Your task to perform on an android device: clear history in the chrome app Image 0: 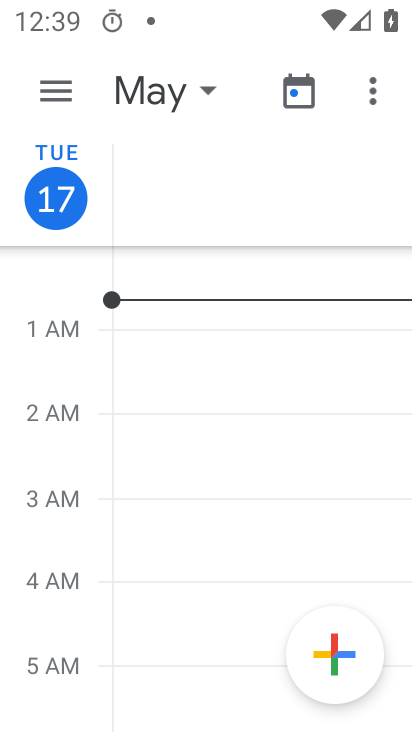
Step 0: press home button
Your task to perform on an android device: clear history in the chrome app Image 1: 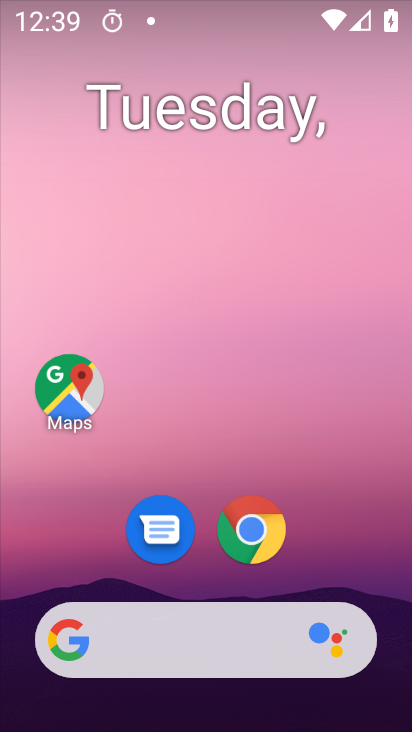
Step 1: click (274, 535)
Your task to perform on an android device: clear history in the chrome app Image 2: 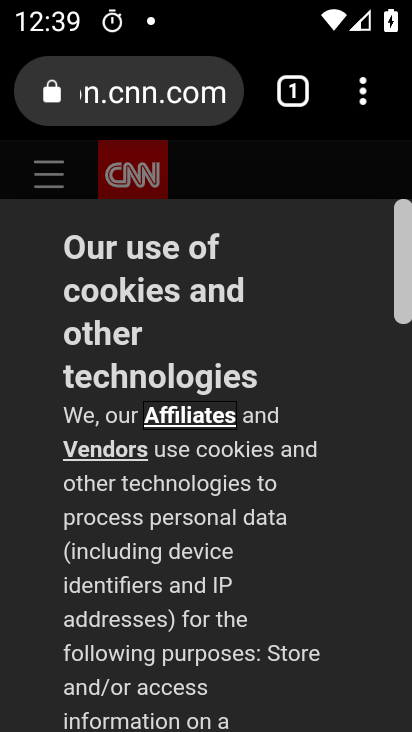
Step 2: drag from (374, 100) to (149, 514)
Your task to perform on an android device: clear history in the chrome app Image 3: 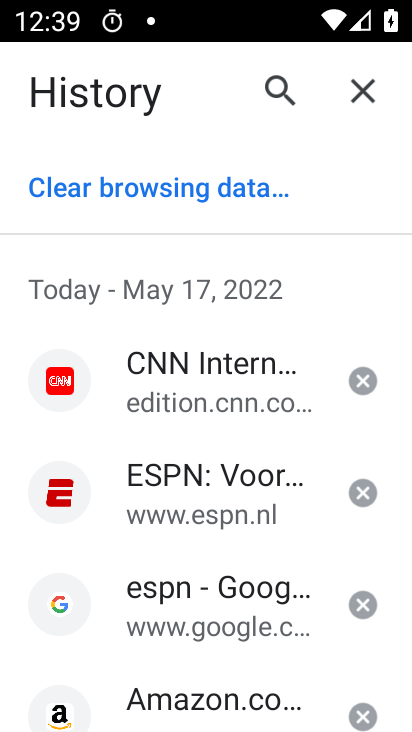
Step 3: click (181, 200)
Your task to perform on an android device: clear history in the chrome app Image 4: 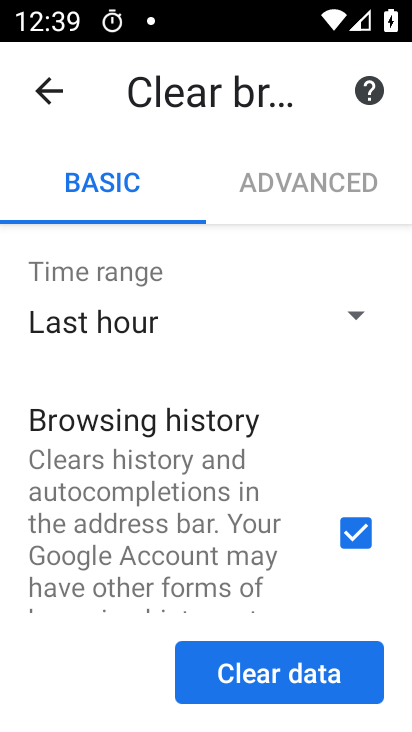
Step 4: drag from (168, 561) to (183, 212)
Your task to perform on an android device: clear history in the chrome app Image 5: 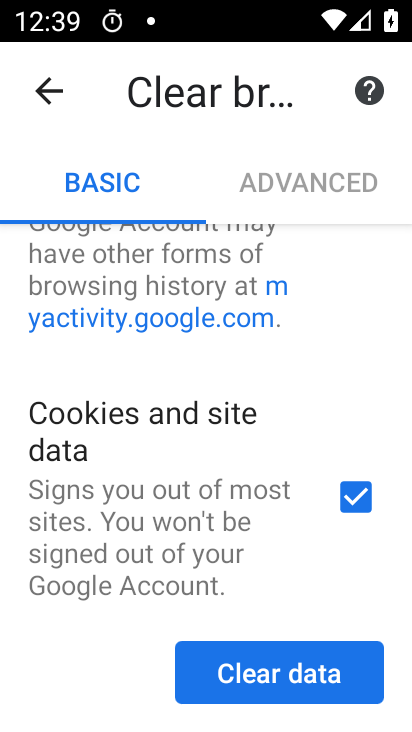
Step 5: drag from (192, 581) to (104, 267)
Your task to perform on an android device: clear history in the chrome app Image 6: 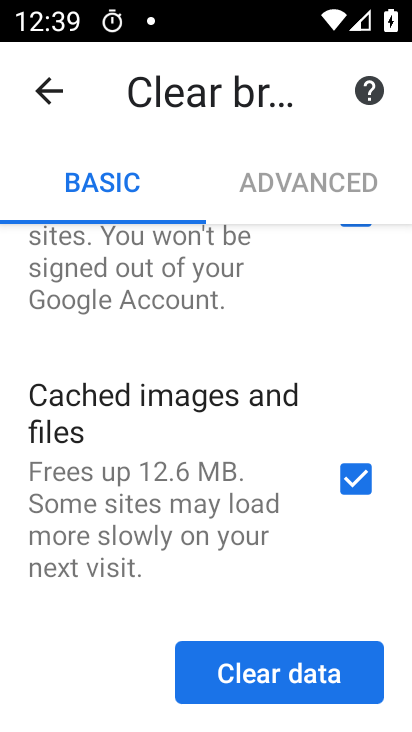
Step 6: click (275, 681)
Your task to perform on an android device: clear history in the chrome app Image 7: 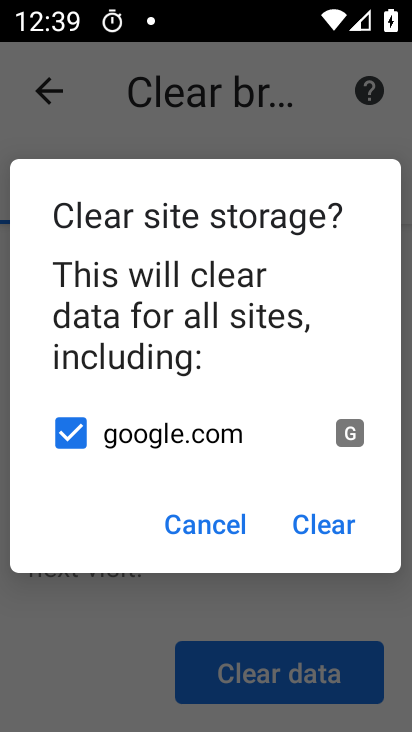
Step 7: click (299, 526)
Your task to perform on an android device: clear history in the chrome app Image 8: 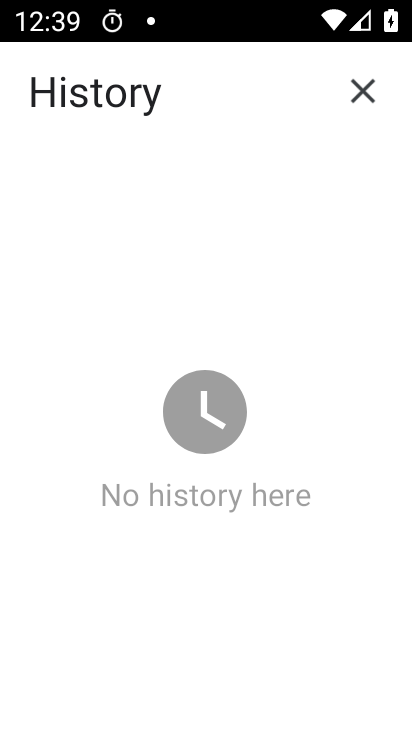
Step 8: task complete